Your task to perform on an android device: Search for sushi restaurants on Maps Image 0: 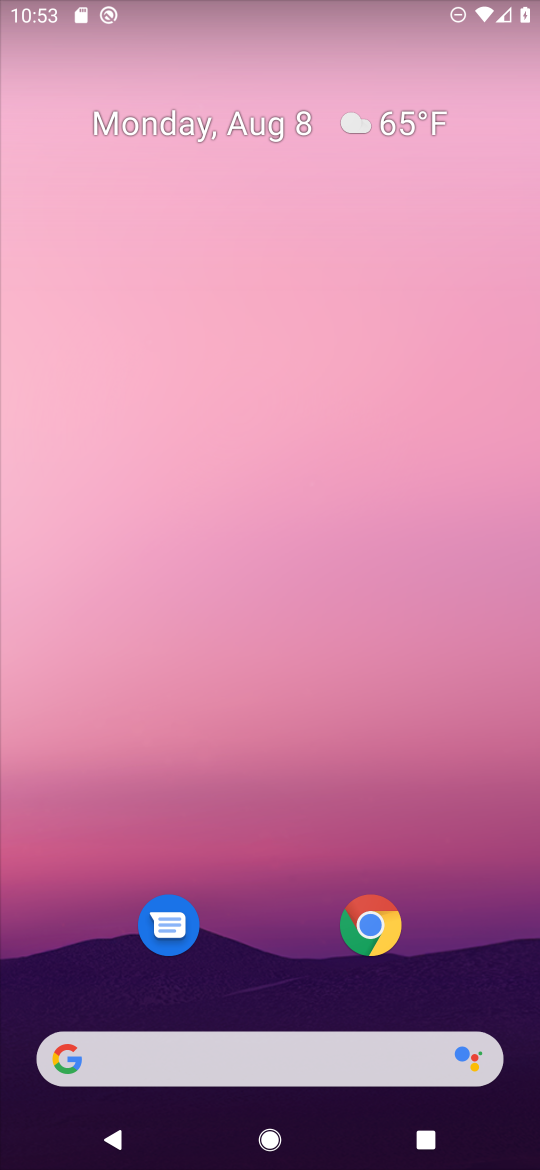
Step 0: drag from (462, 865) to (403, 57)
Your task to perform on an android device: Search for sushi restaurants on Maps Image 1: 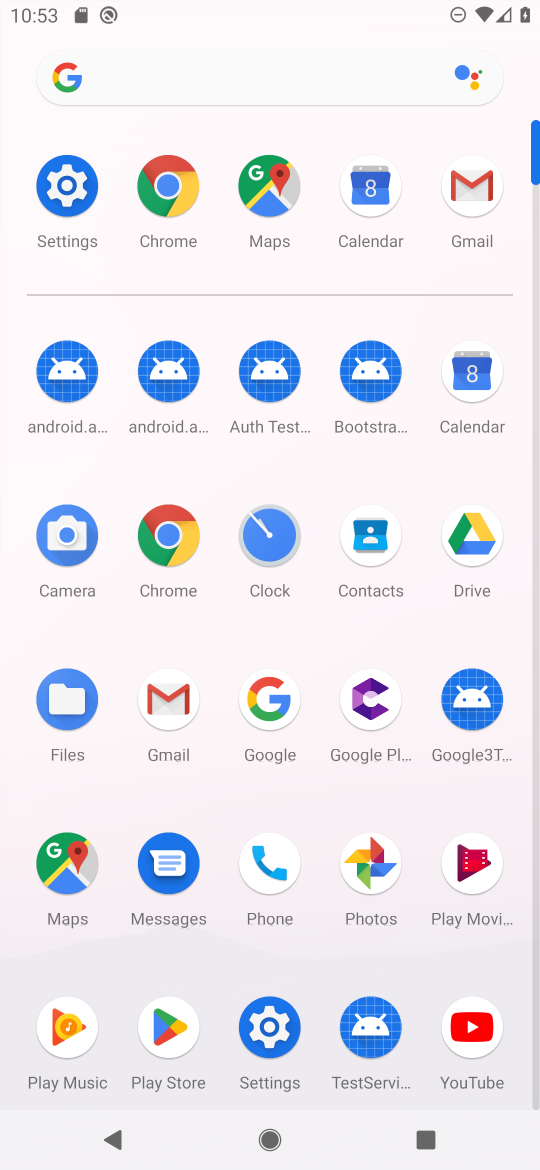
Step 1: click (69, 866)
Your task to perform on an android device: Search for sushi restaurants on Maps Image 2: 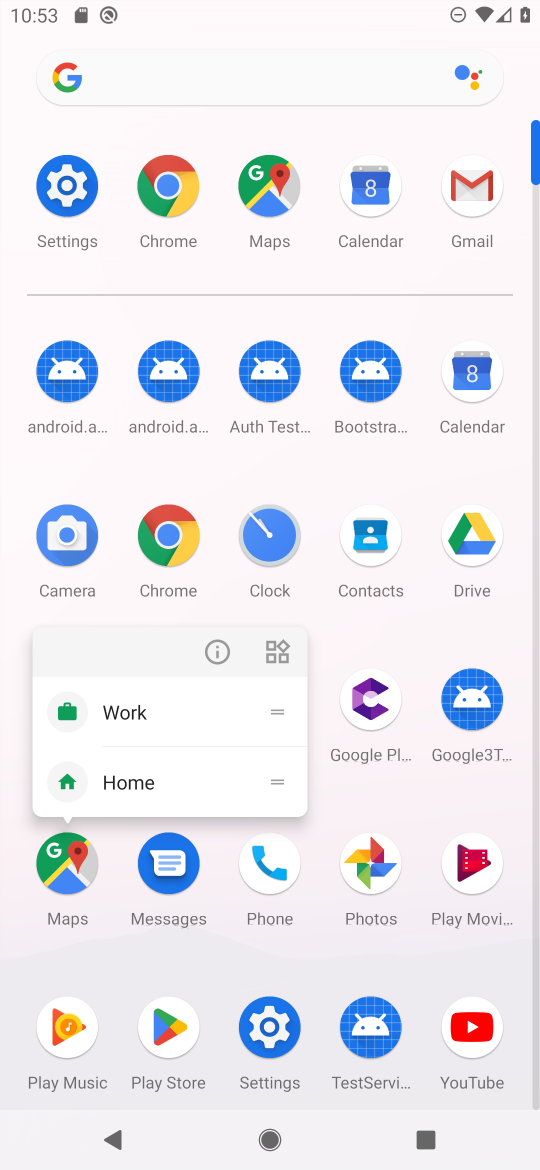
Step 2: click (69, 864)
Your task to perform on an android device: Search for sushi restaurants on Maps Image 3: 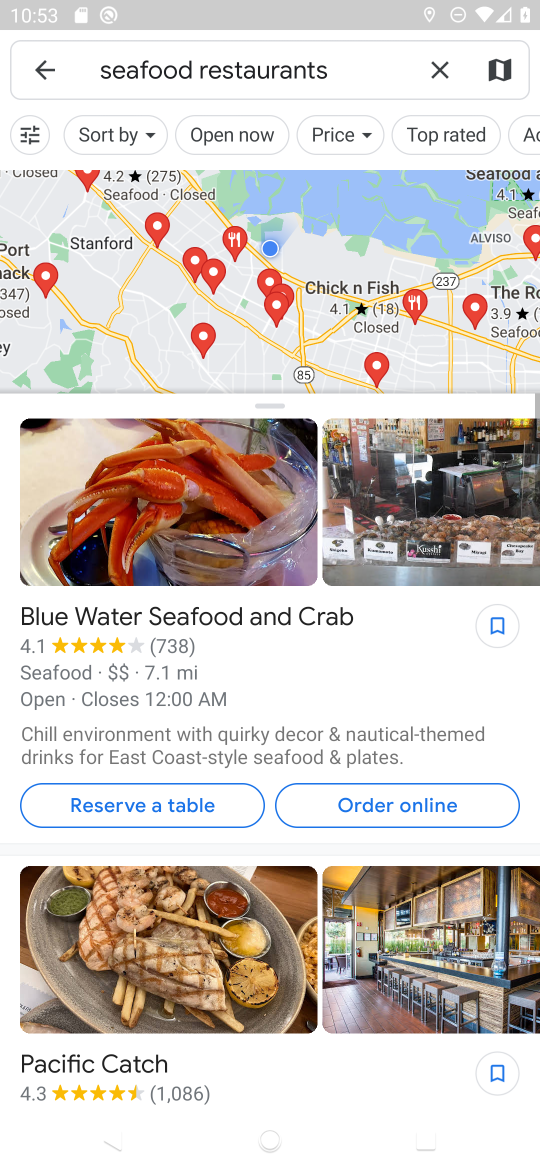
Step 3: task complete